Your task to perform on an android device: Open Chrome and go to settings Image 0: 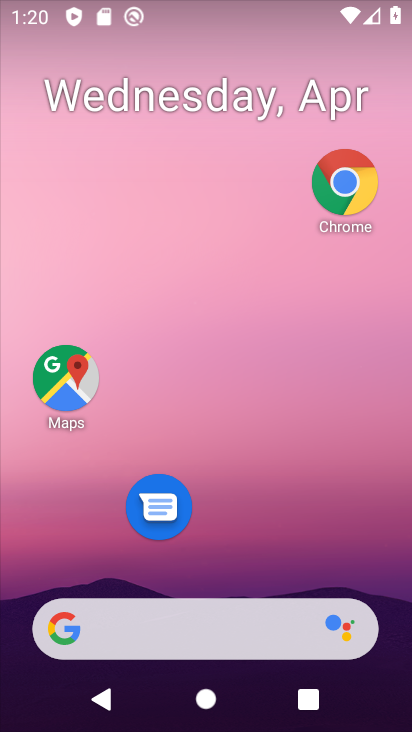
Step 0: click (340, 189)
Your task to perform on an android device: Open Chrome and go to settings Image 1: 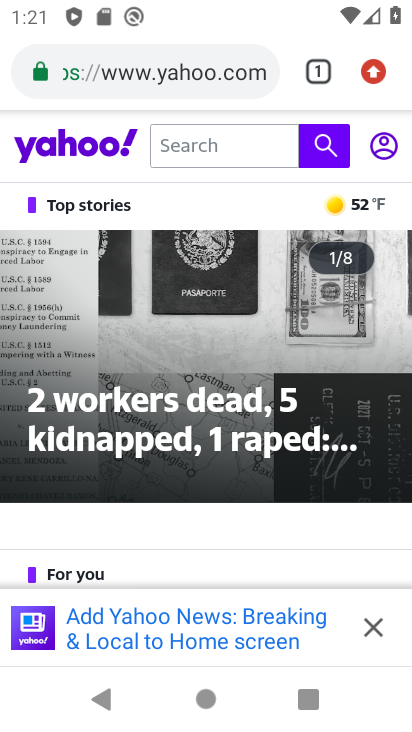
Step 1: click (380, 64)
Your task to perform on an android device: Open Chrome and go to settings Image 2: 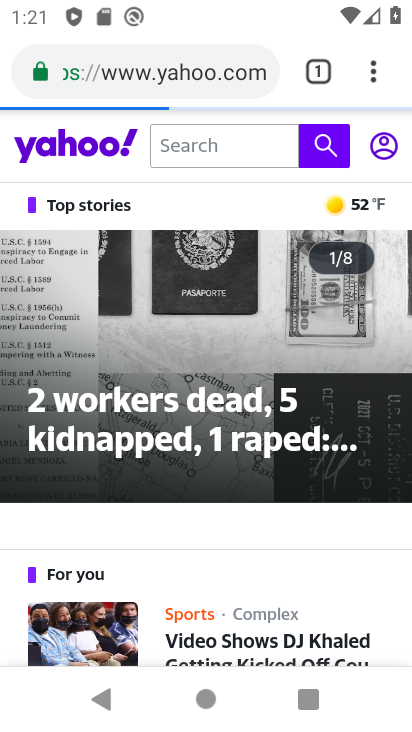
Step 2: click (378, 68)
Your task to perform on an android device: Open Chrome and go to settings Image 3: 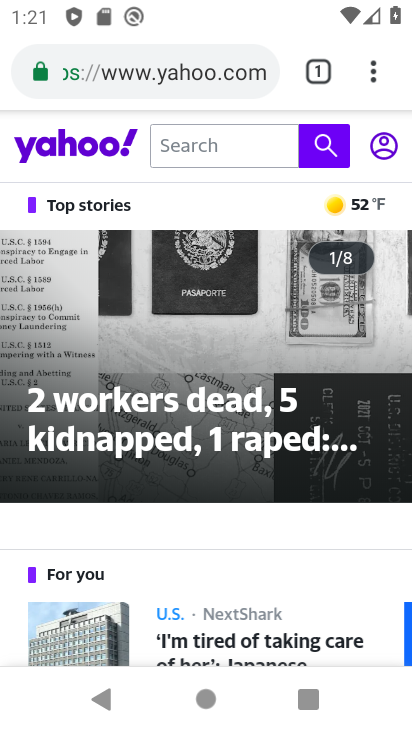
Step 3: click (375, 75)
Your task to perform on an android device: Open Chrome and go to settings Image 4: 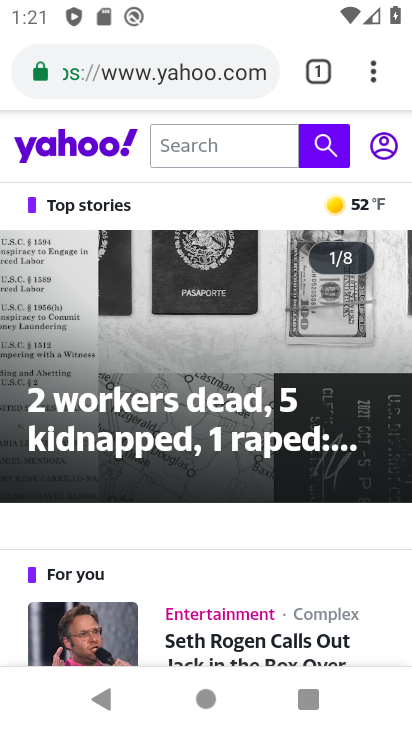
Step 4: click (376, 70)
Your task to perform on an android device: Open Chrome and go to settings Image 5: 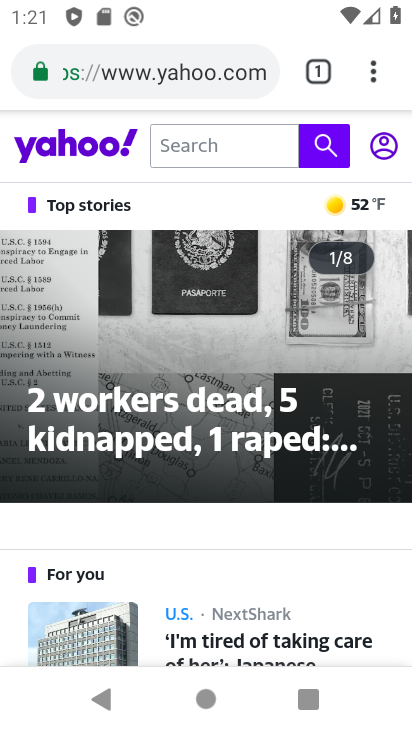
Step 5: task complete